Your task to perform on an android device: Open settings Image 0: 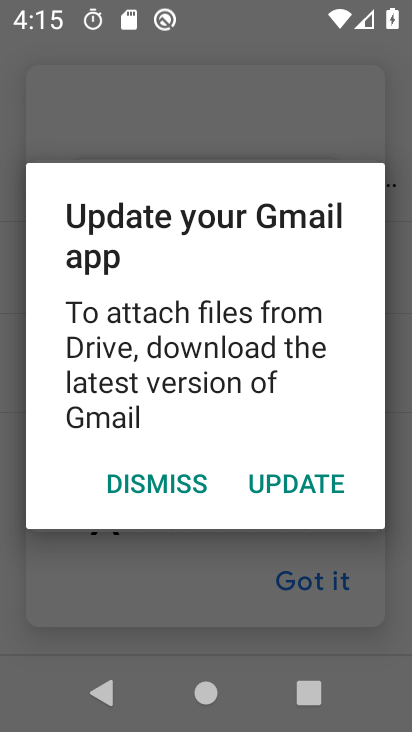
Step 0: press home button
Your task to perform on an android device: Open settings Image 1: 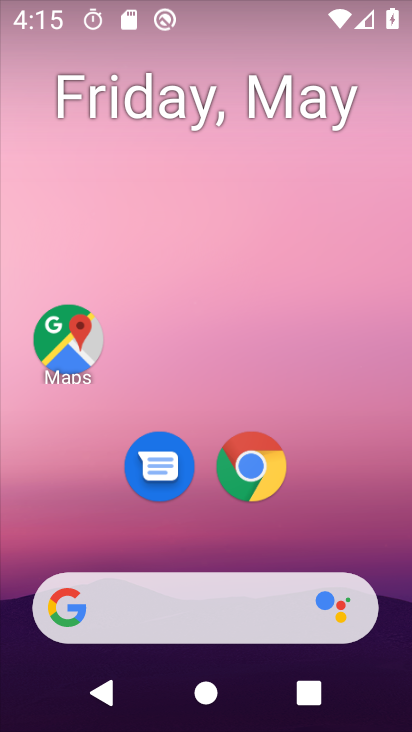
Step 1: drag from (362, 265) to (357, 218)
Your task to perform on an android device: Open settings Image 2: 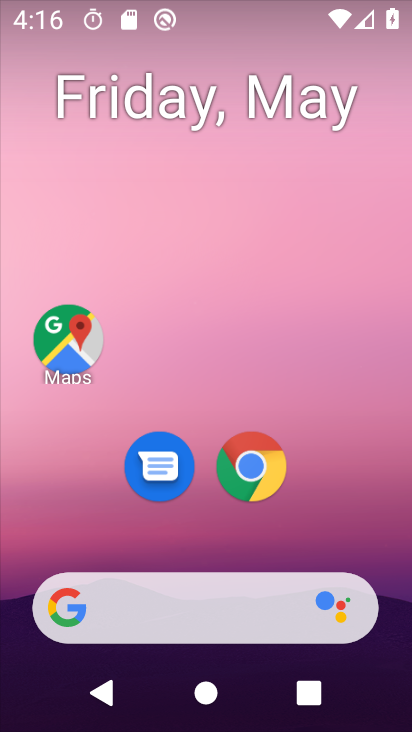
Step 2: drag from (389, 525) to (379, 227)
Your task to perform on an android device: Open settings Image 3: 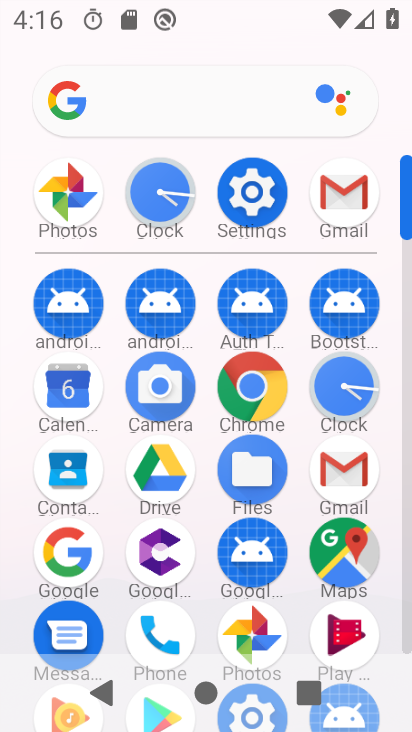
Step 3: click (242, 190)
Your task to perform on an android device: Open settings Image 4: 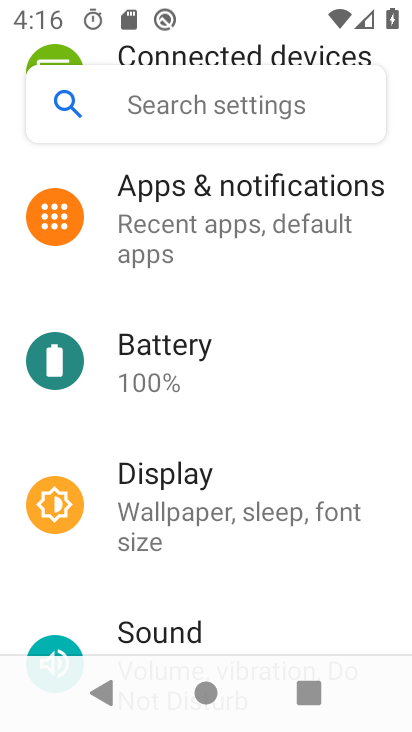
Step 4: task complete